Your task to perform on an android device: Search for "usb-b" on bestbuy, select the first entry, and add it to the cart. Image 0: 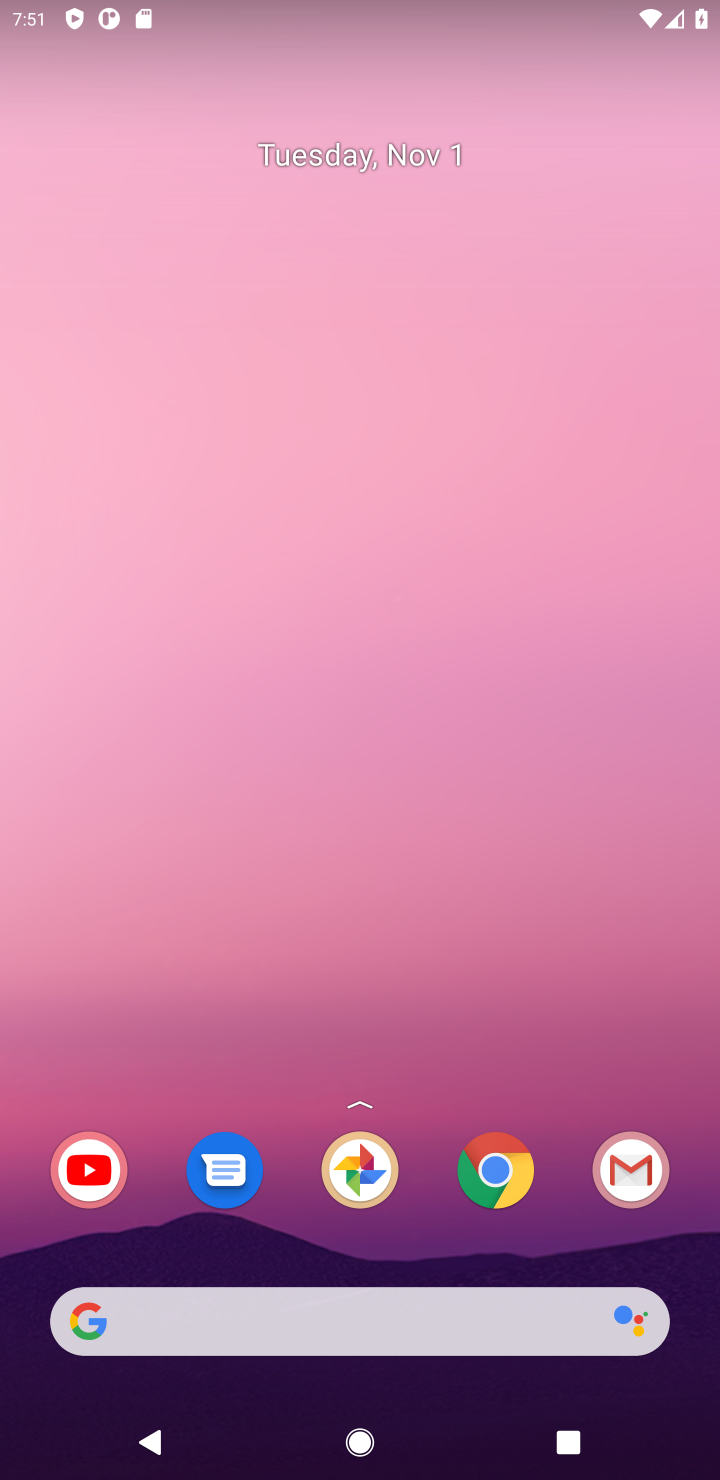
Step 0: click (512, 1186)
Your task to perform on an android device: Search for "usb-b" on bestbuy, select the first entry, and add it to the cart. Image 1: 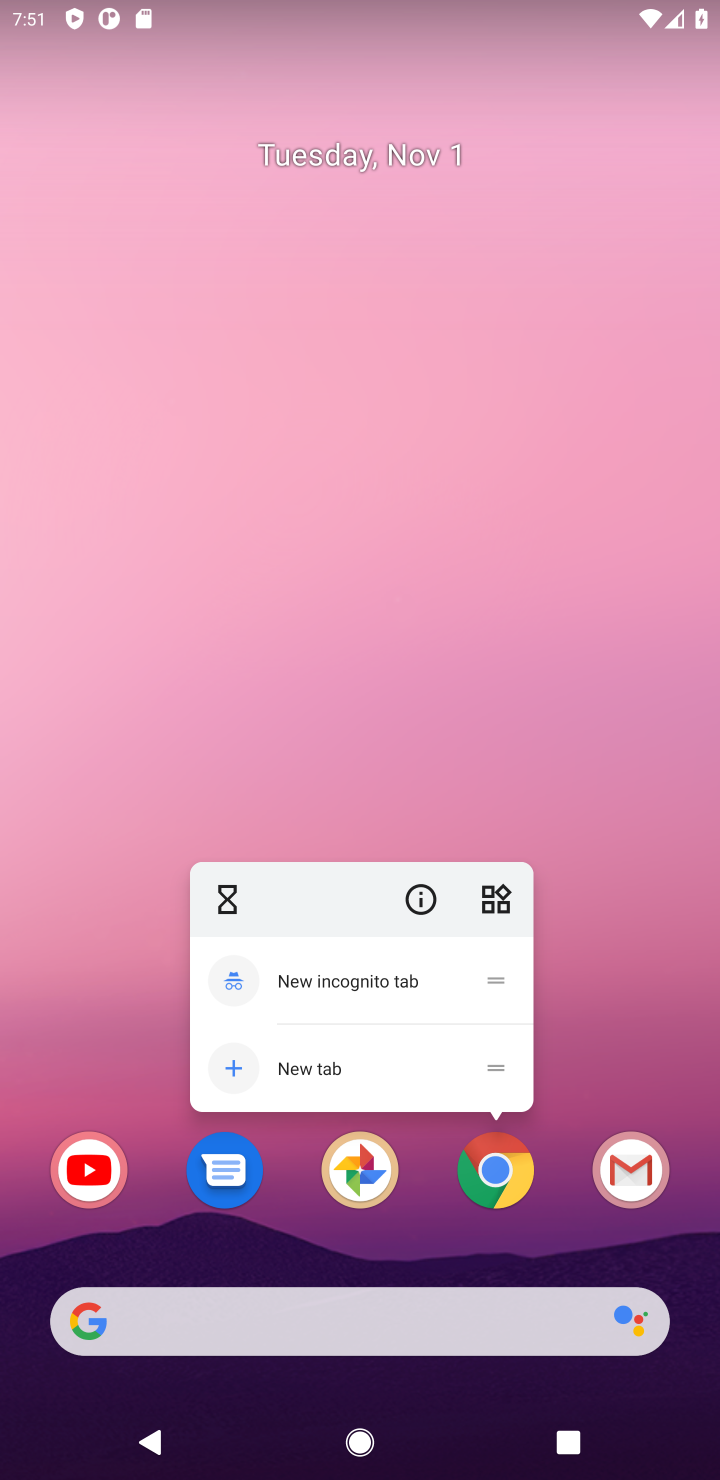
Step 1: click (516, 1171)
Your task to perform on an android device: Search for "usb-b" on bestbuy, select the first entry, and add it to the cart. Image 2: 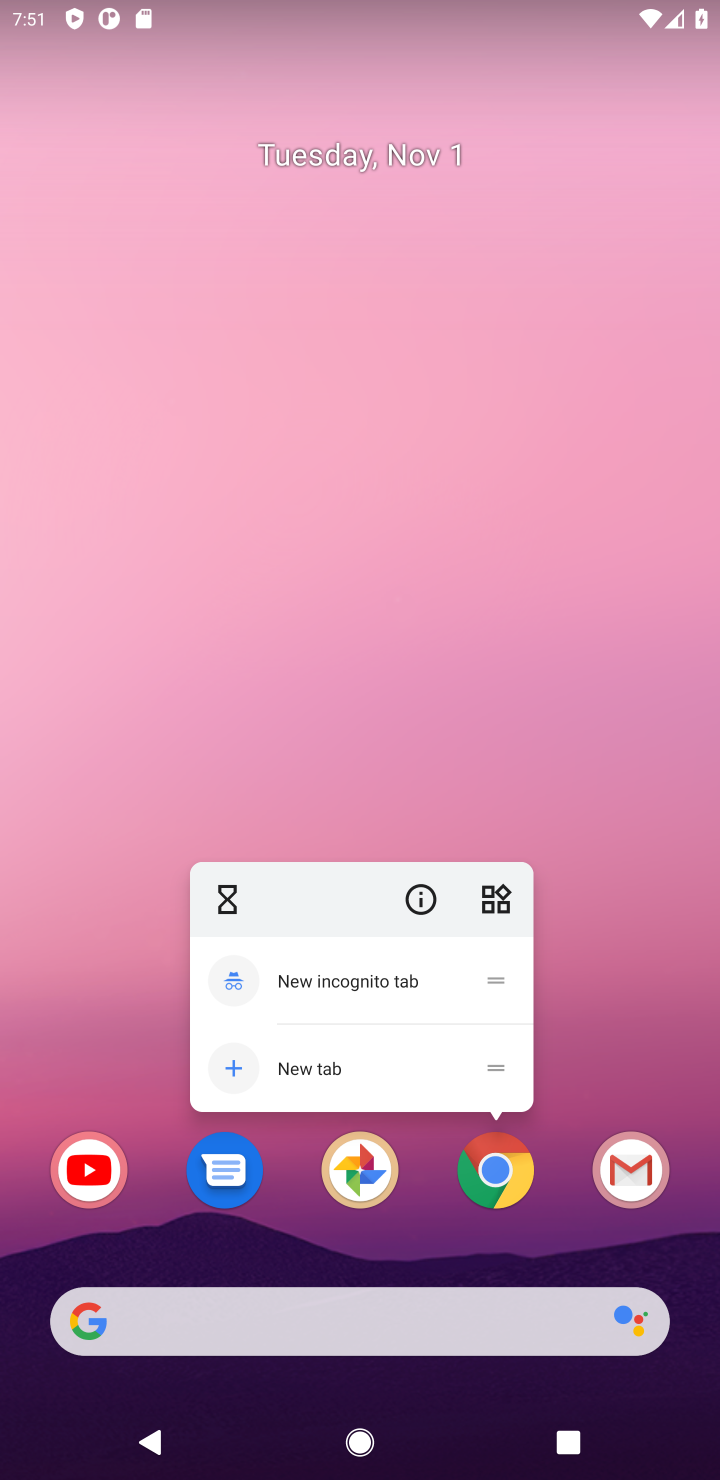
Step 2: click (493, 1190)
Your task to perform on an android device: Search for "usb-b" on bestbuy, select the first entry, and add it to the cart. Image 3: 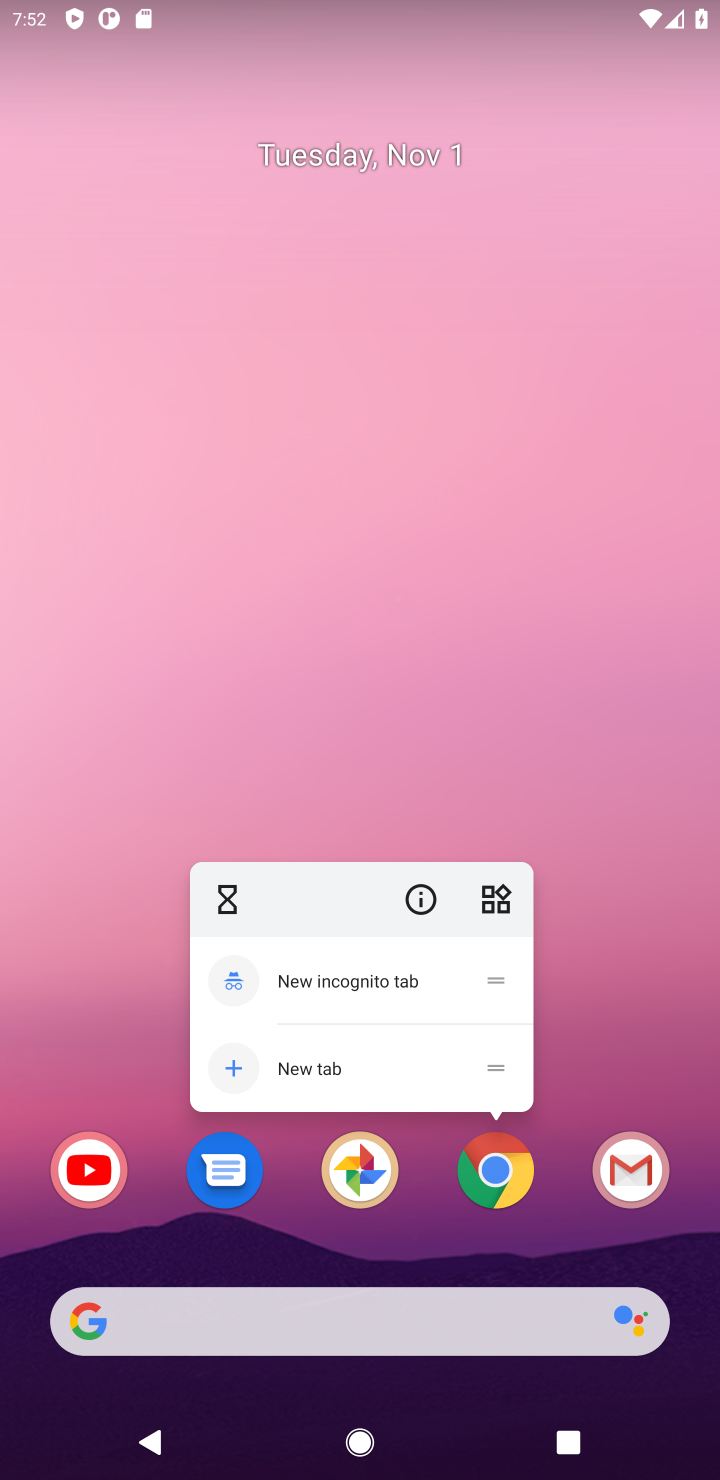
Step 3: click (505, 1189)
Your task to perform on an android device: Search for "usb-b" on bestbuy, select the first entry, and add it to the cart. Image 4: 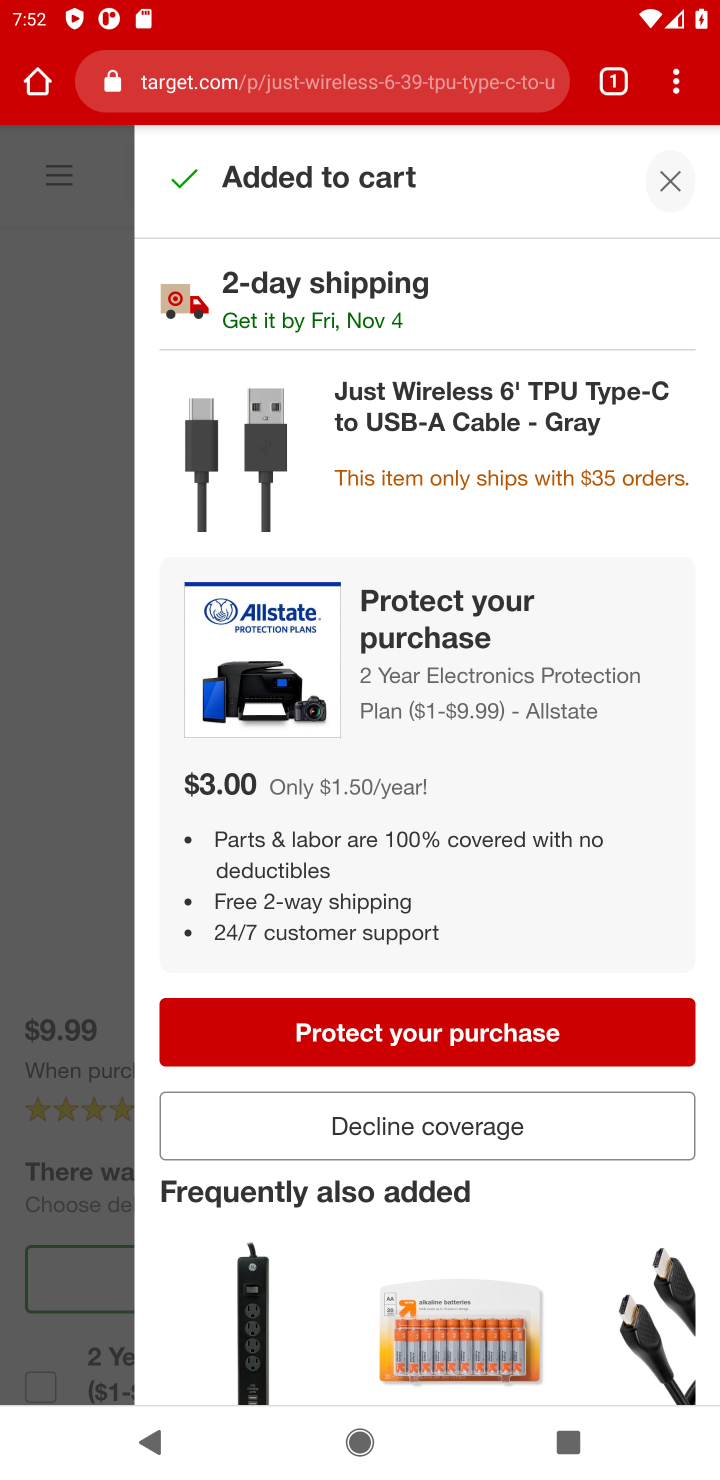
Step 4: click (403, 79)
Your task to perform on an android device: Search for "usb-b" on bestbuy, select the first entry, and add it to the cart. Image 5: 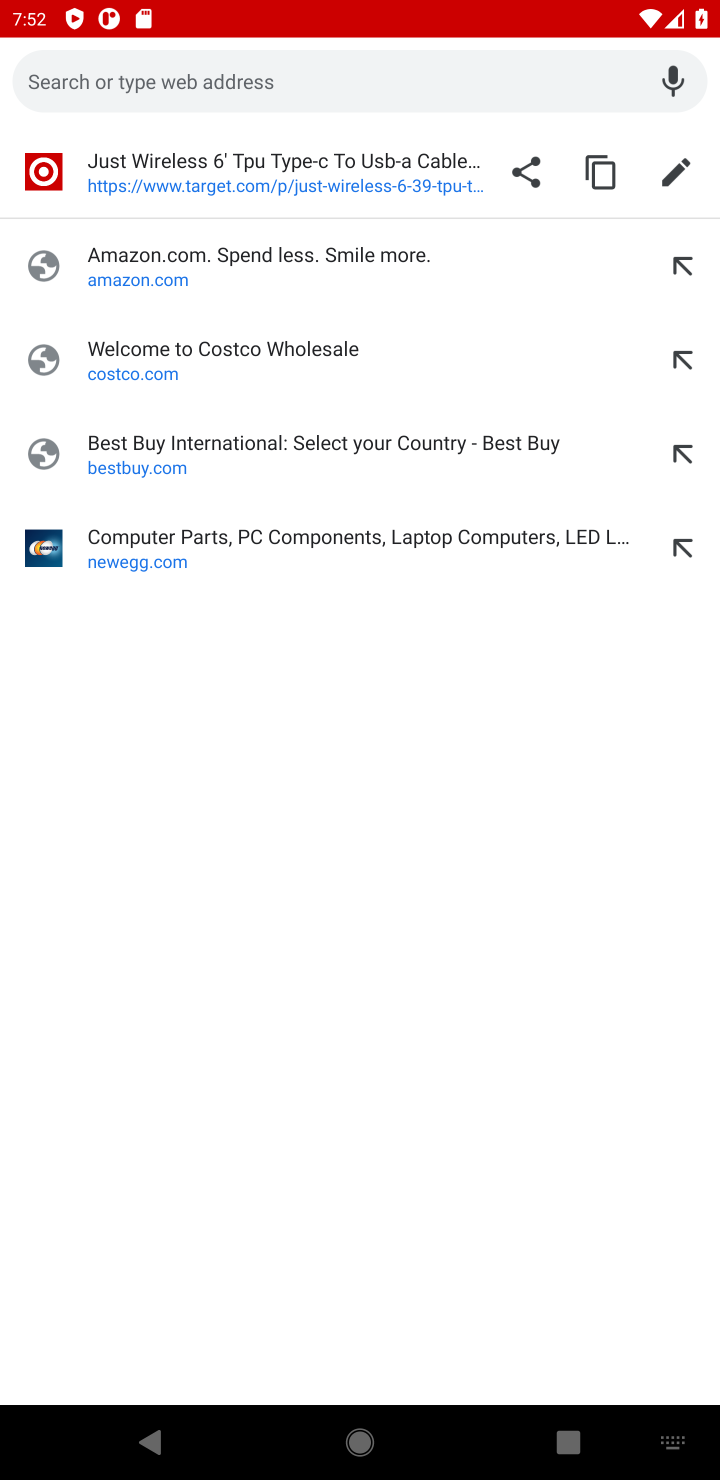
Step 5: type "bestbuy"
Your task to perform on an android device: Search for "usb-b" on bestbuy, select the first entry, and add it to the cart. Image 6: 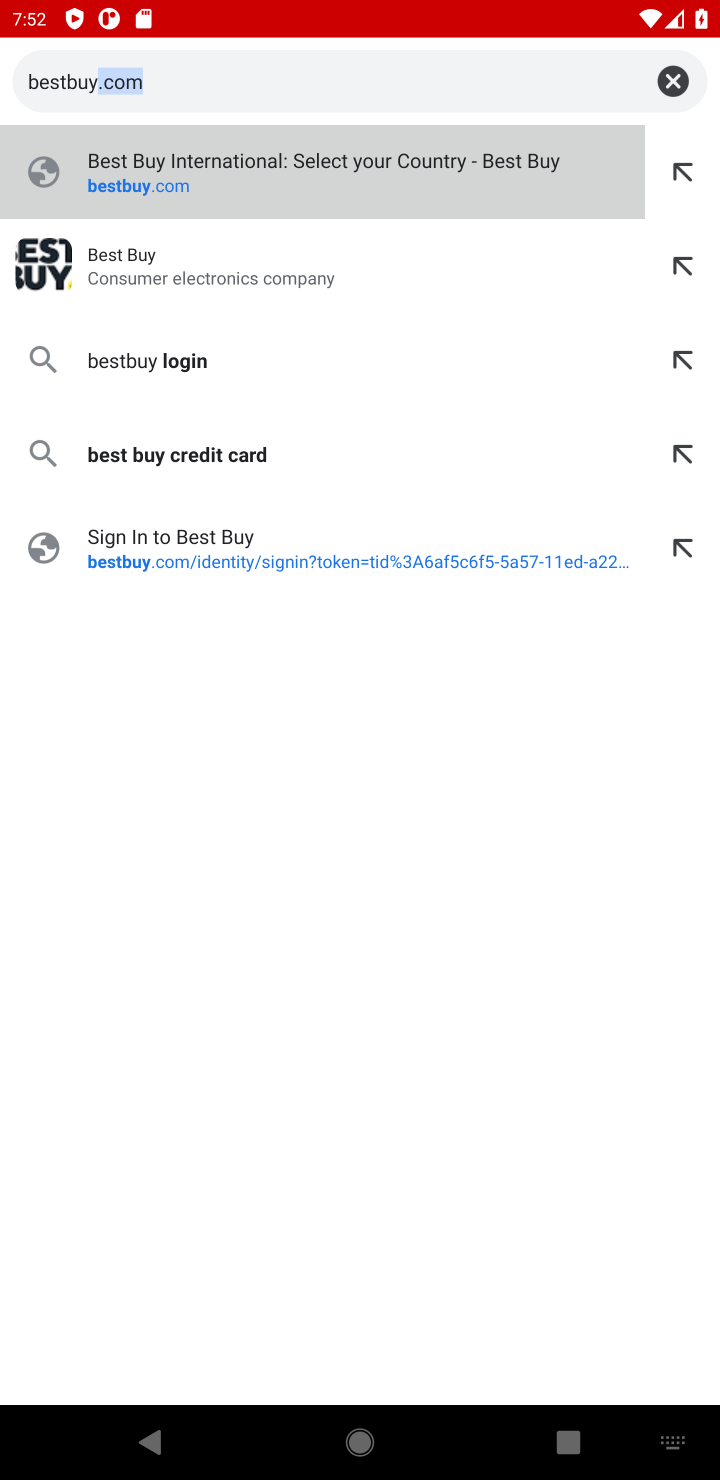
Step 6: type ""
Your task to perform on an android device: Search for "usb-b" on bestbuy, select the first entry, and add it to the cart. Image 7: 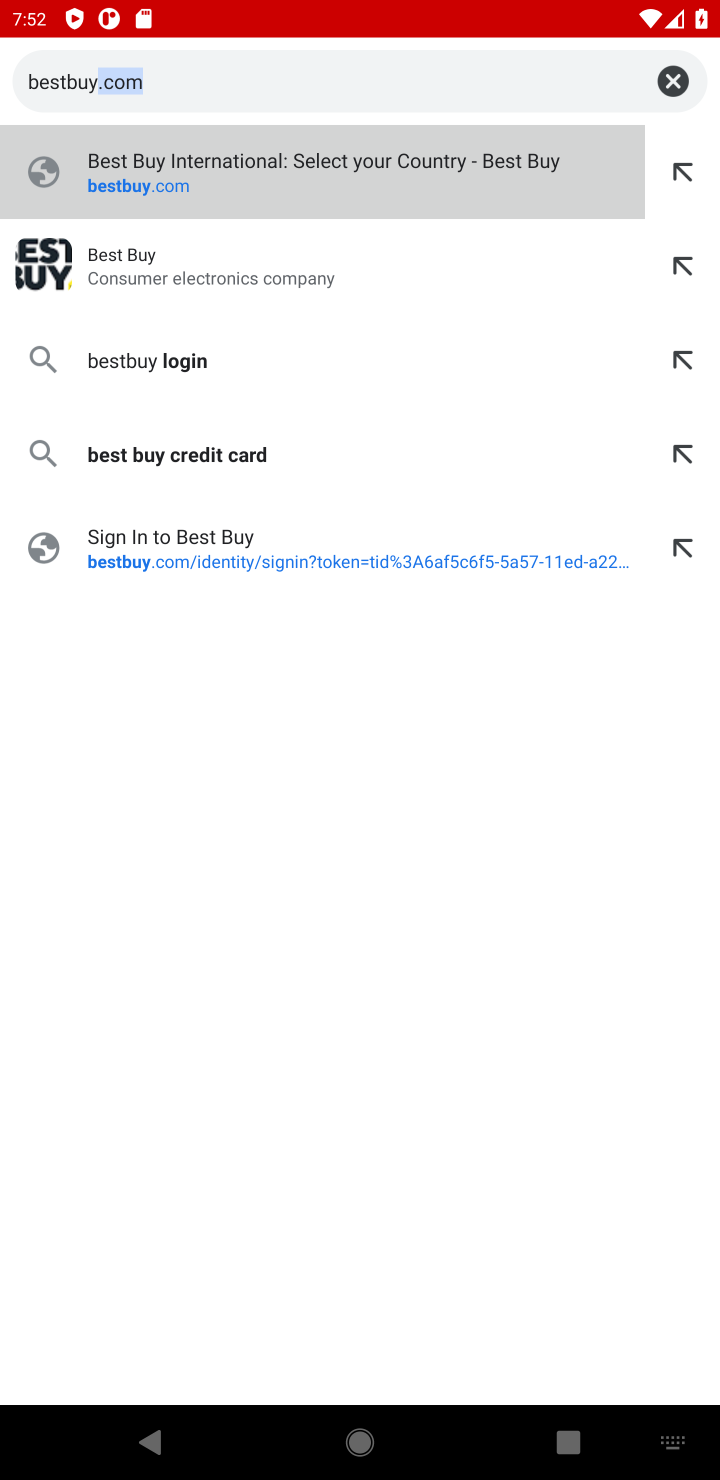
Step 7: press enter
Your task to perform on an android device: Search for "usb-b" on bestbuy, select the first entry, and add it to the cart. Image 8: 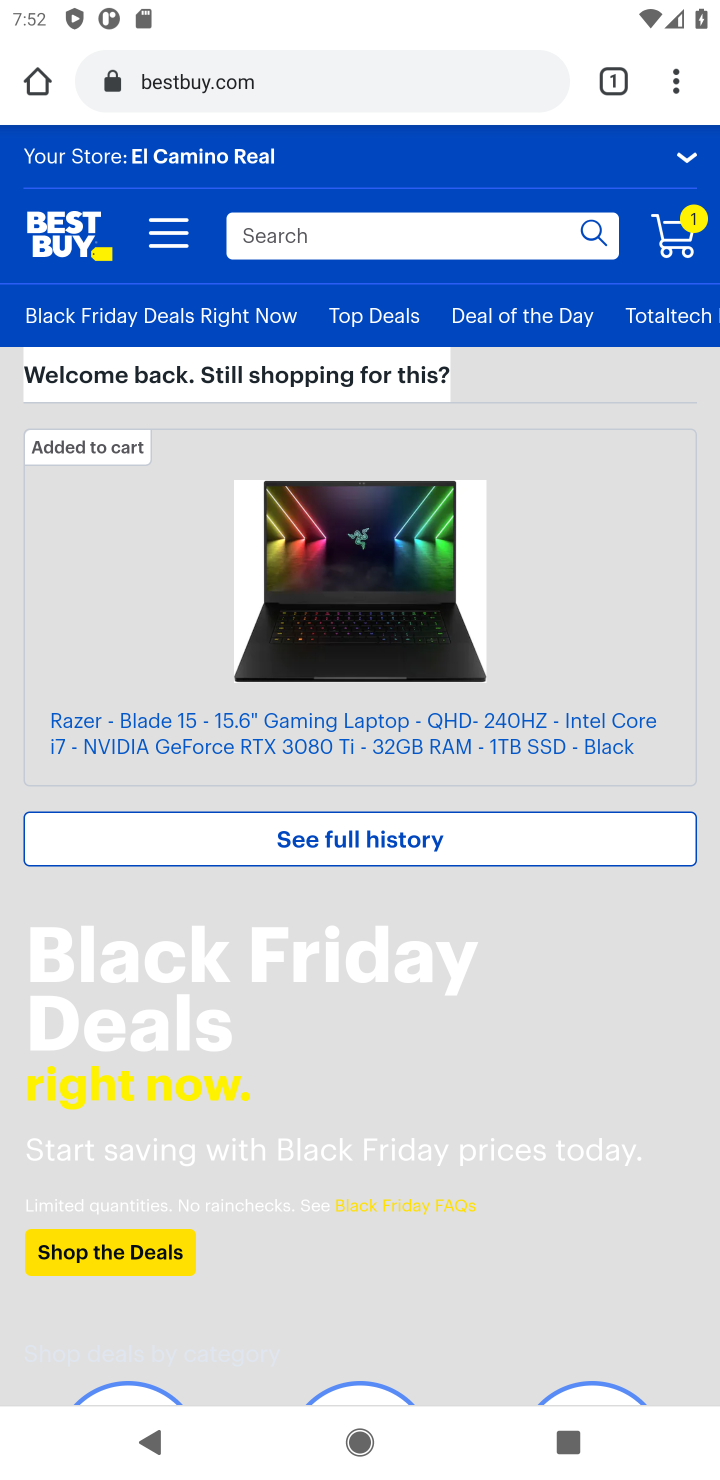
Step 8: click (393, 235)
Your task to perform on an android device: Search for "usb-b" on bestbuy, select the first entry, and add it to the cart. Image 9: 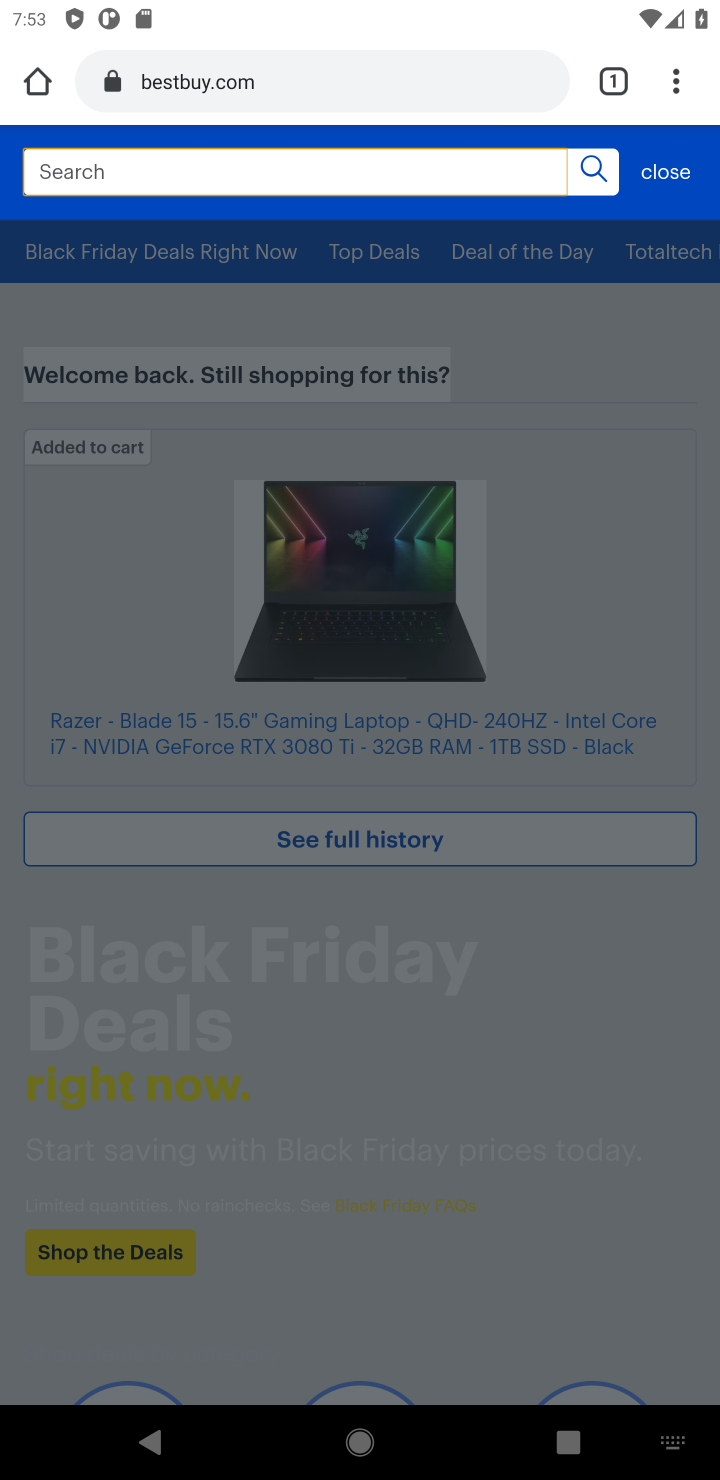
Step 9: type "usb-b"
Your task to perform on an android device: Search for "usb-b" on bestbuy, select the first entry, and add it to the cart. Image 10: 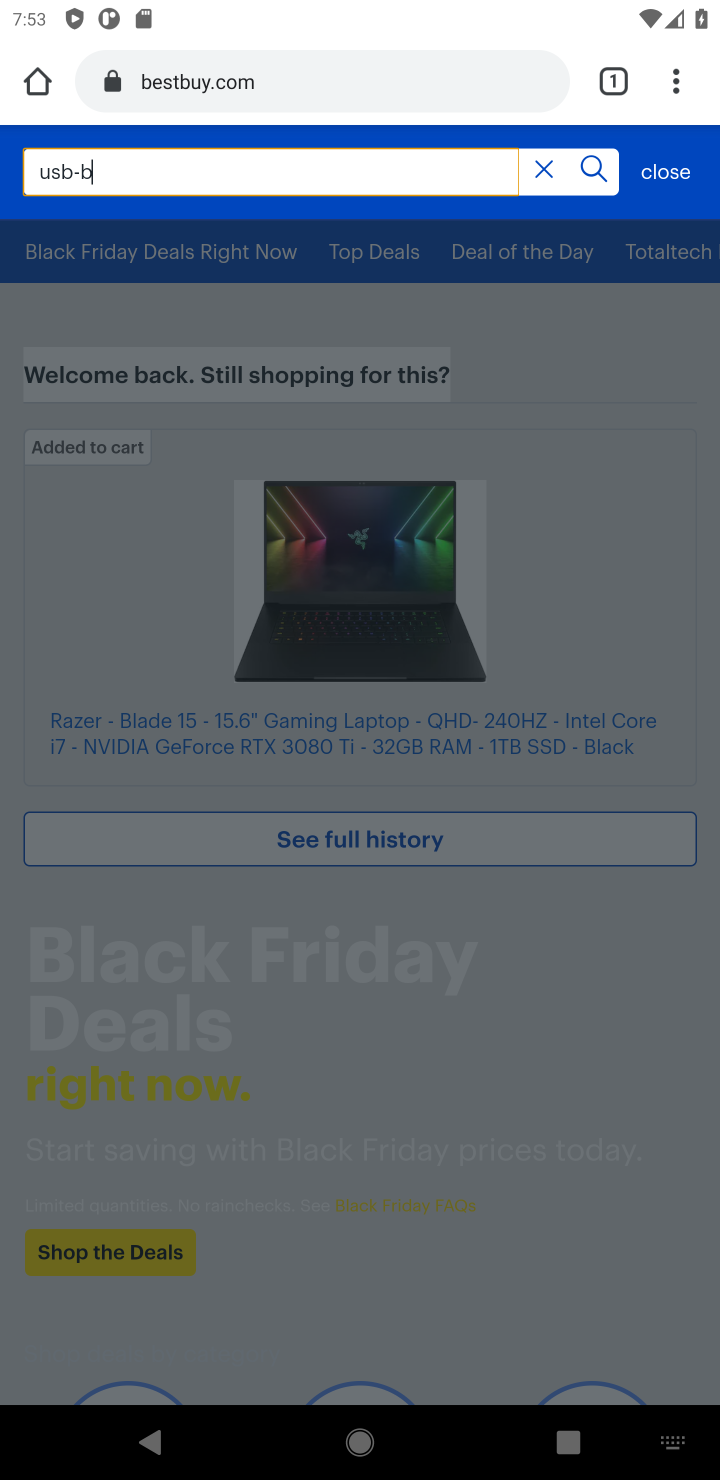
Step 10: type ""
Your task to perform on an android device: Search for "usb-b" on bestbuy, select the first entry, and add it to the cart. Image 11: 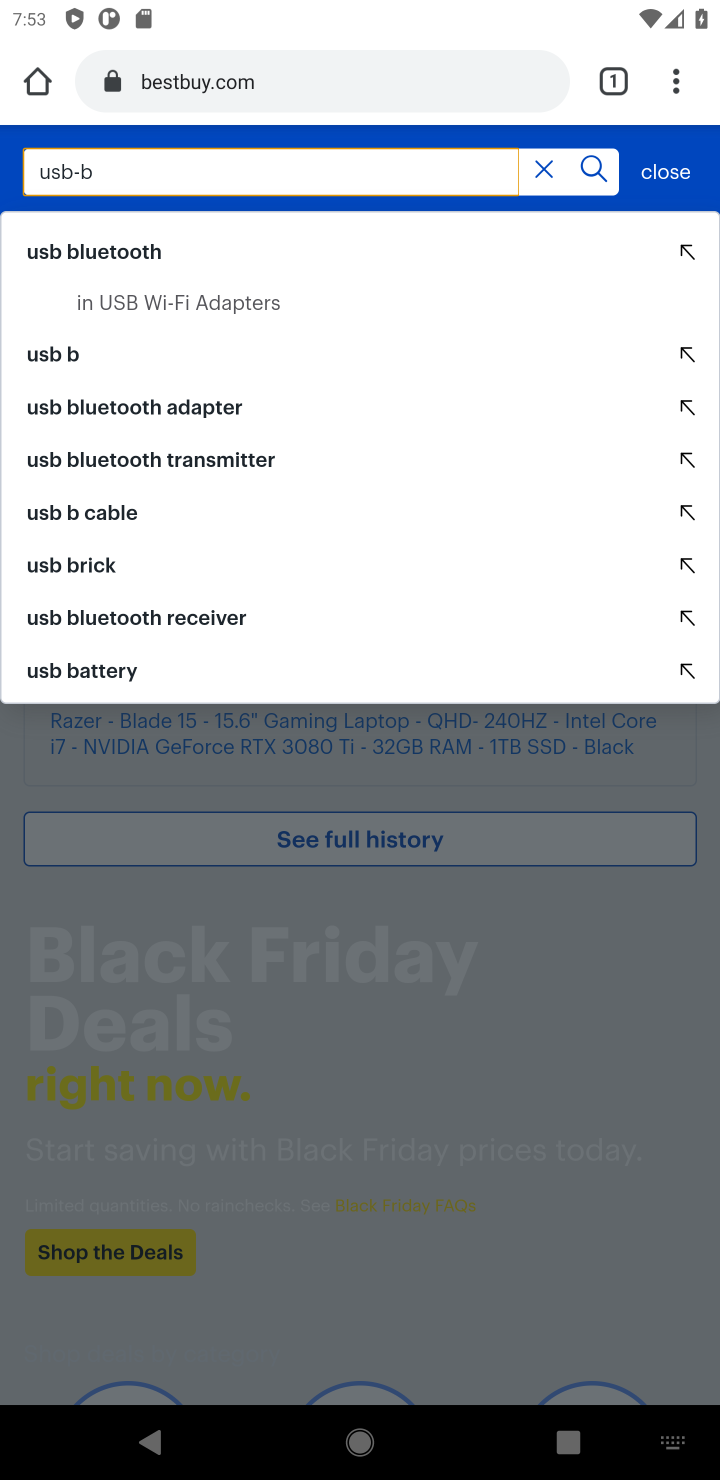
Step 11: press enter
Your task to perform on an android device: Search for "usb-b" on bestbuy, select the first entry, and add it to the cart. Image 12: 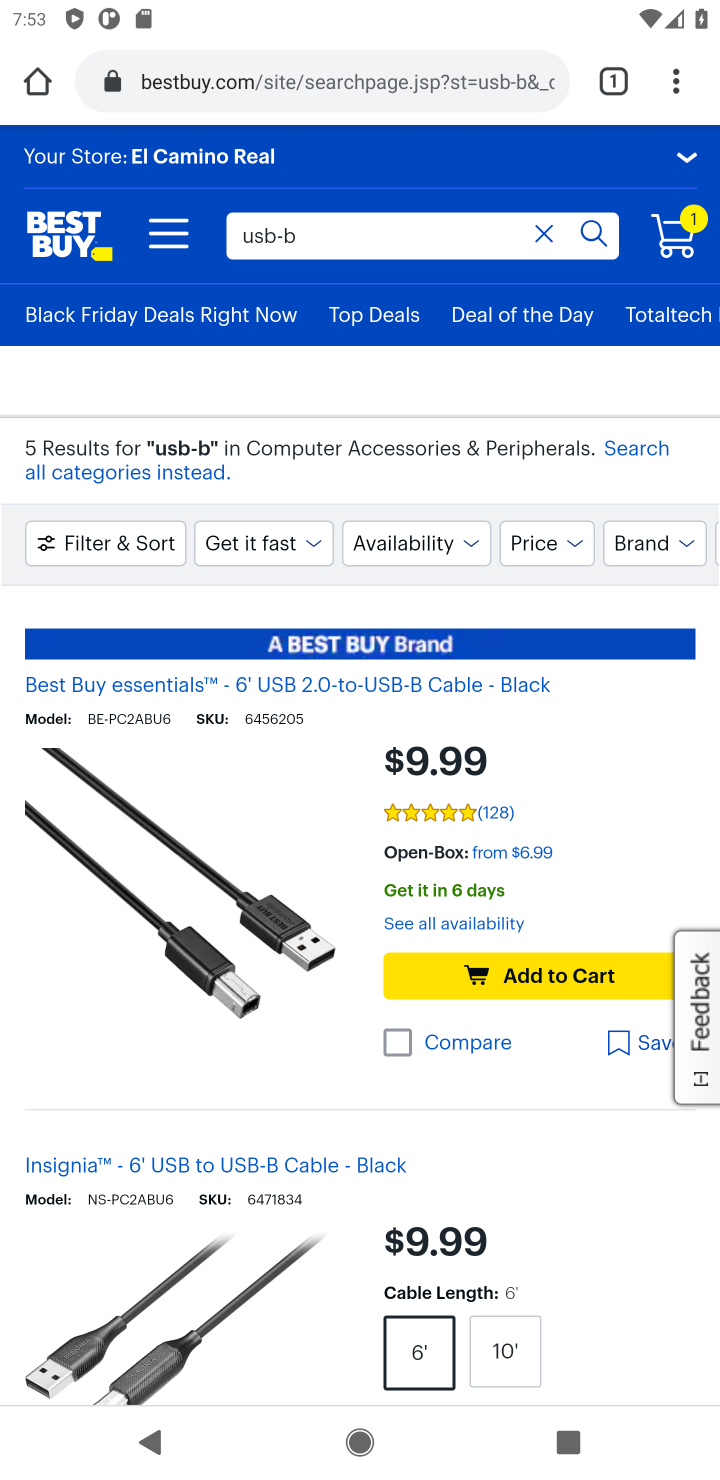
Step 12: click (254, 897)
Your task to perform on an android device: Search for "usb-b" on bestbuy, select the first entry, and add it to the cart. Image 13: 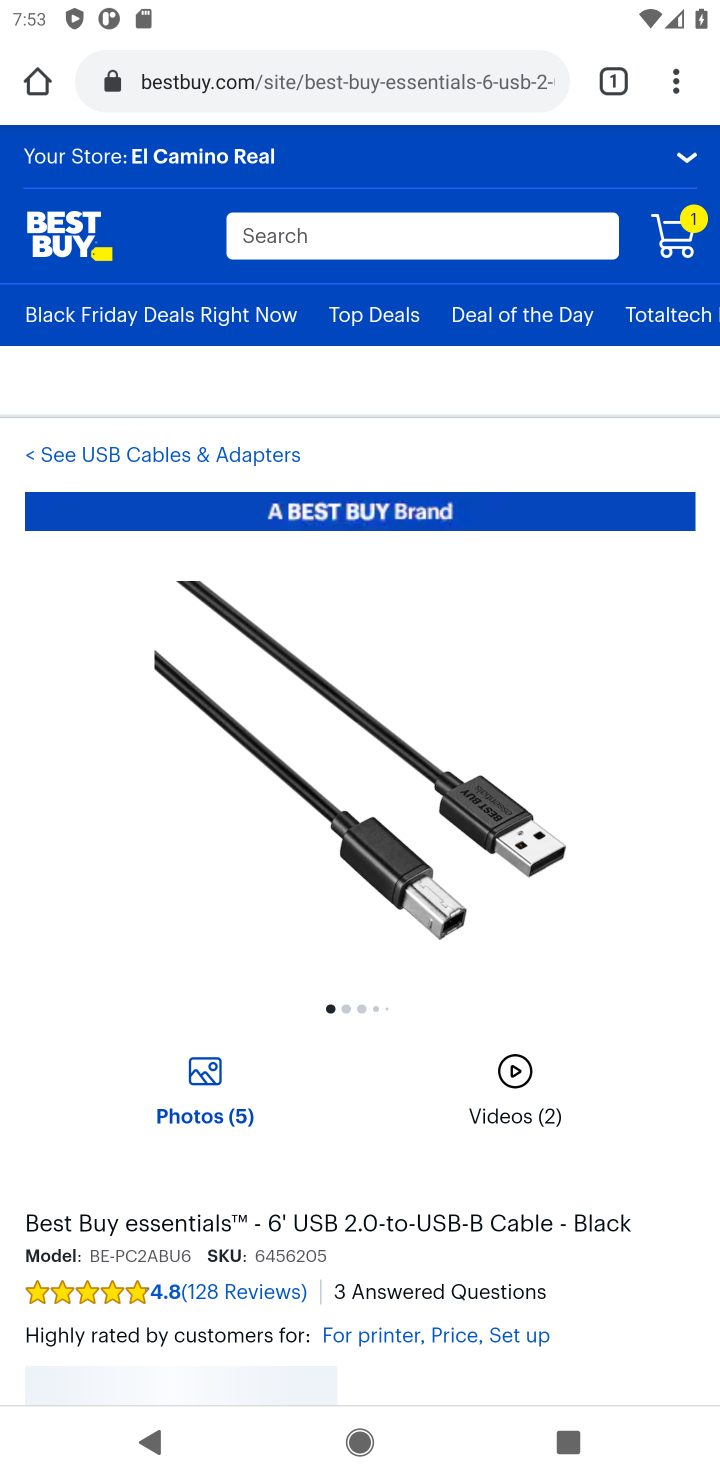
Step 13: drag from (566, 1258) to (472, 218)
Your task to perform on an android device: Search for "usb-b" on bestbuy, select the first entry, and add it to the cart. Image 14: 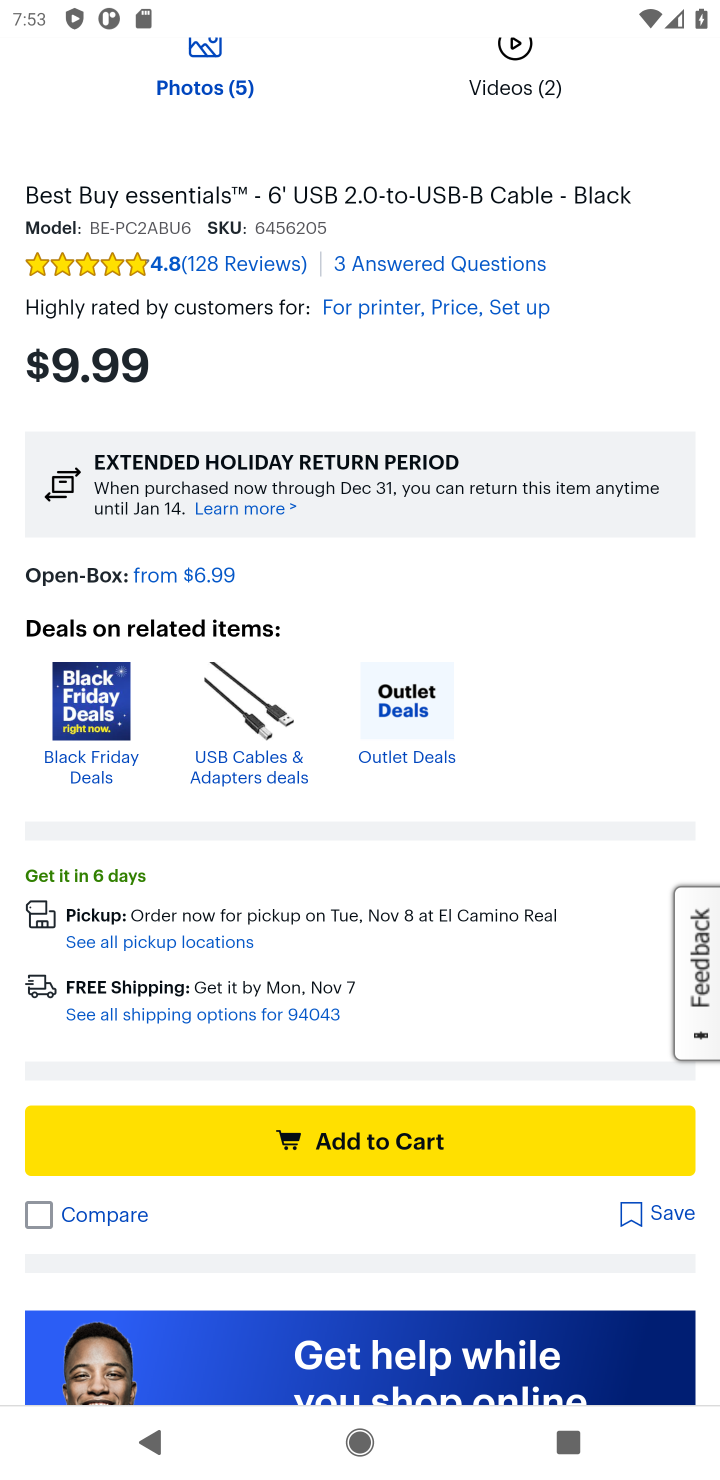
Step 14: click (352, 1148)
Your task to perform on an android device: Search for "usb-b" on bestbuy, select the first entry, and add it to the cart. Image 15: 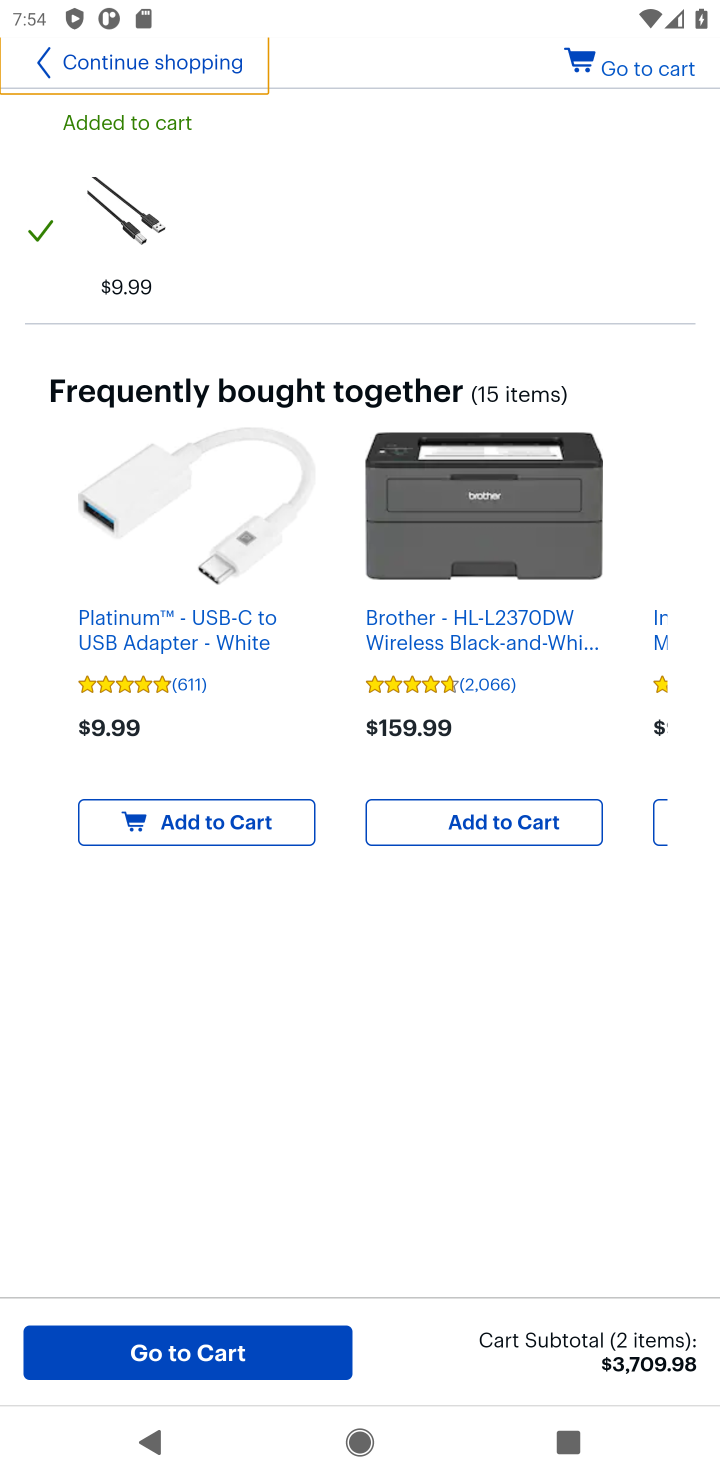
Step 15: task complete